Your task to perform on an android device: Turn on the flashlight Image 0: 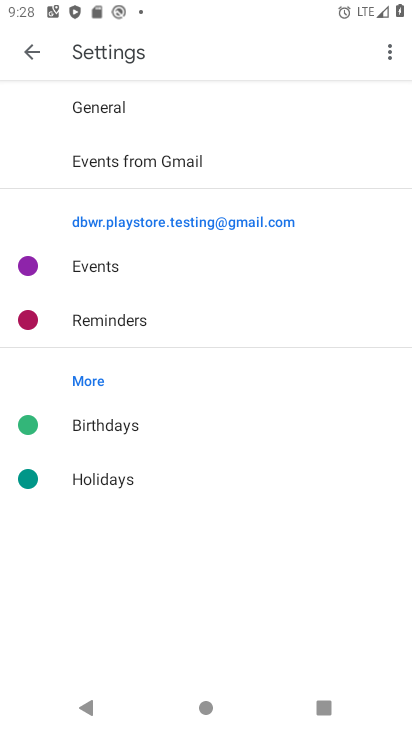
Step 0: drag from (280, 11) to (290, 597)
Your task to perform on an android device: Turn on the flashlight Image 1: 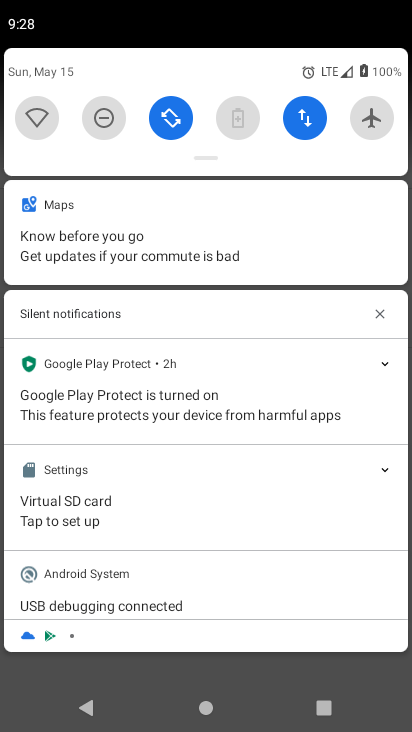
Step 1: task complete